Your task to perform on an android device: search for starred emails in the gmail app Image 0: 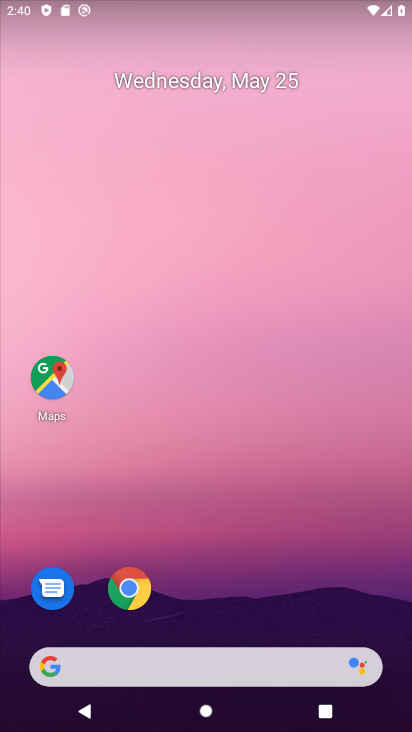
Step 0: drag from (252, 605) to (251, 161)
Your task to perform on an android device: search for starred emails in the gmail app Image 1: 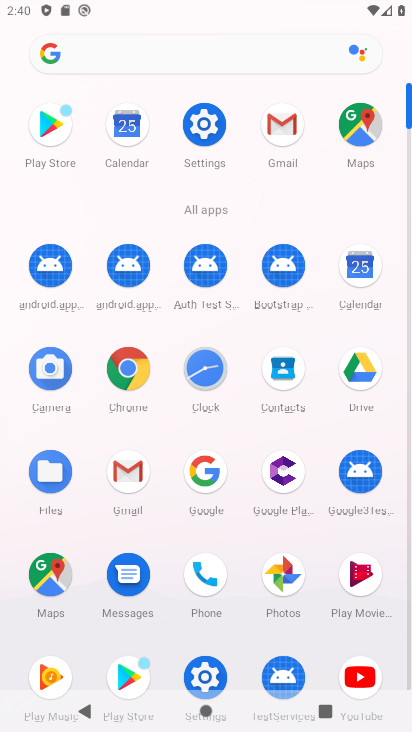
Step 1: click (122, 478)
Your task to perform on an android device: search for starred emails in the gmail app Image 2: 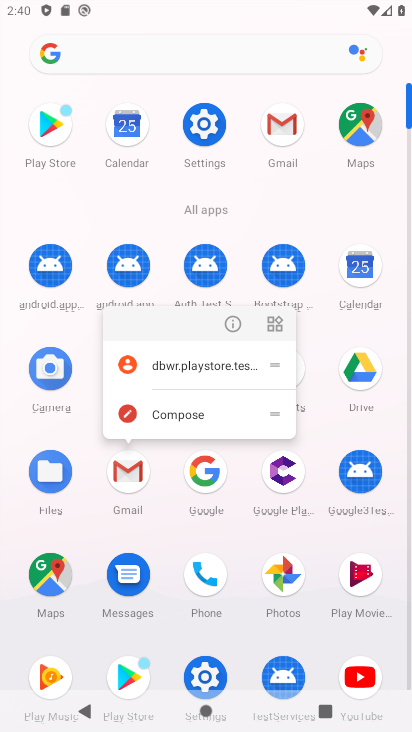
Step 2: click (122, 462)
Your task to perform on an android device: search for starred emails in the gmail app Image 3: 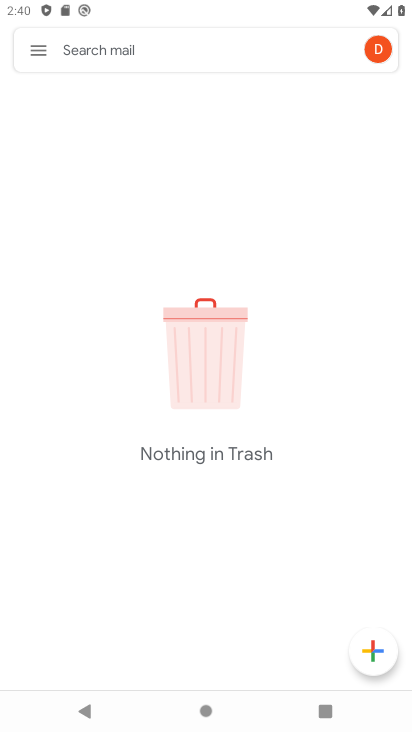
Step 3: click (35, 52)
Your task to perform on an android device: search for starred emails in the gmail app Image 4: 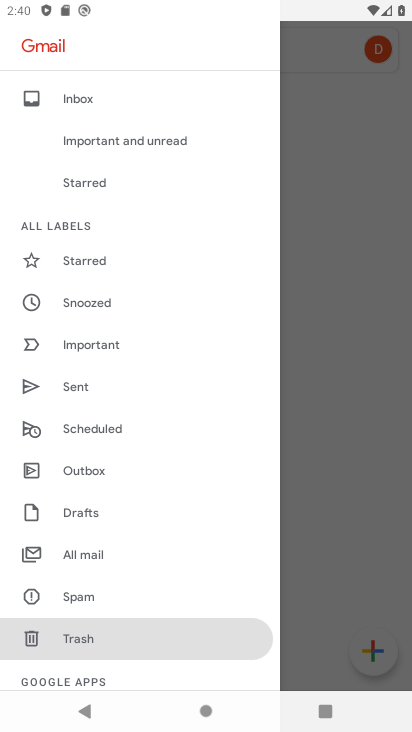
Step 4: click (104, 181)
Your task to perform on an android device: search for starred emails in the gmail app Image 5: 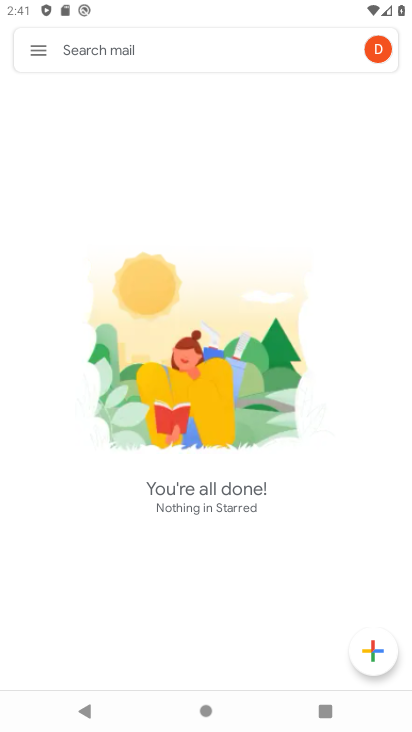
Step 5: task complete